Your task to perform on an android device: turn off notifications in google photos Image 0: 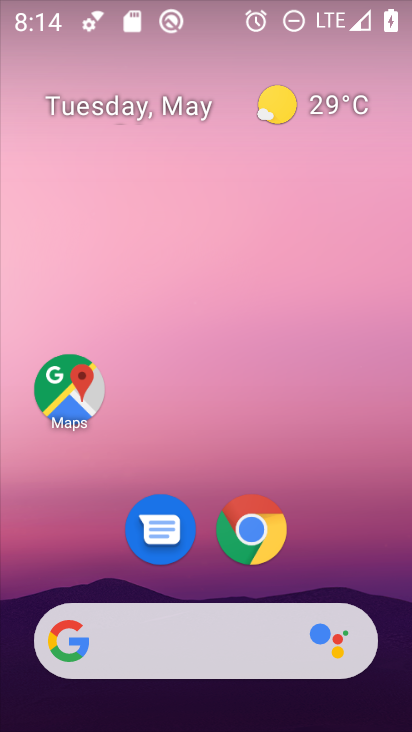
Step 0: drag from (391, 666) to (249, 78)
Your task to perform on an android device: turn off notifications in google photos Image 1: 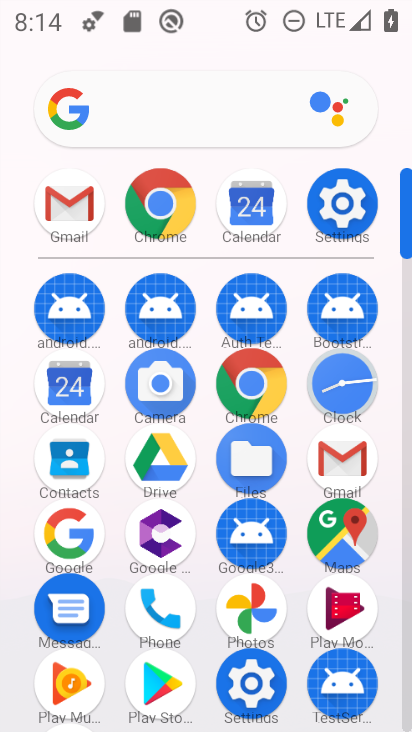
Step 1: click (235, 608)
Your task to perform on an android device: turn off notifications in google photos Image 2: 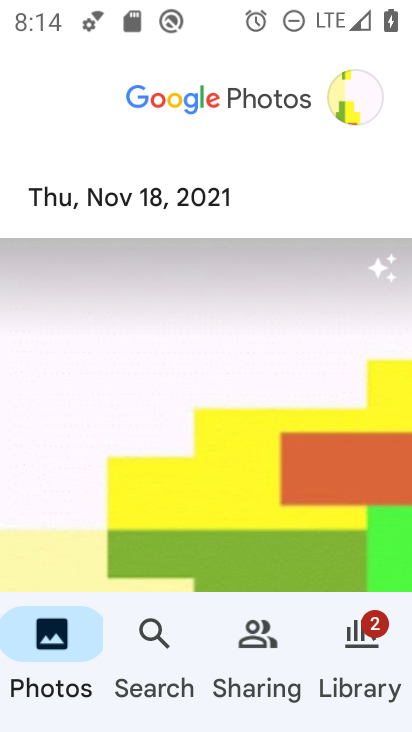
Step 2: click (371, 93)
Your task to perform on an android device: turn off notifications in google photos Image 3: 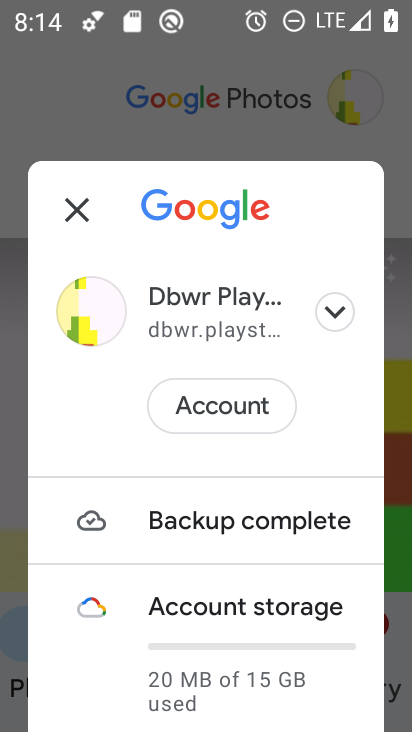
Step 3: drag from (177, 645) to (180, 304)
Your task to perform on an android device: turn off notifications in google photos Image 4: 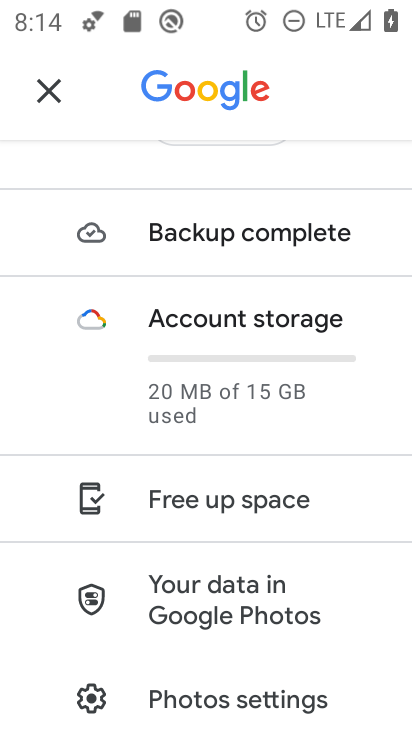
Step 4: click (235, 699)
Your task to perform on an android device: turn off notifications in google photos Image 5: 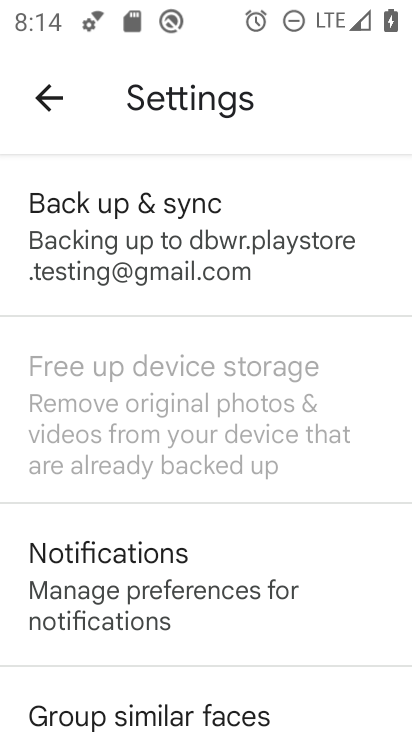
Step 5: click (241, 580)
Your task to perform on an android device: turn off notifications in google photos Image 6: 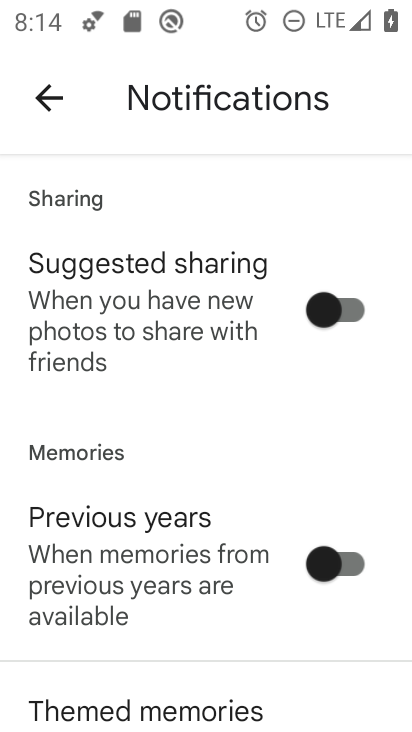
Step 6: task complete